Your task to perform on an android device: Search for sushi restaurants on Maps Image 0: 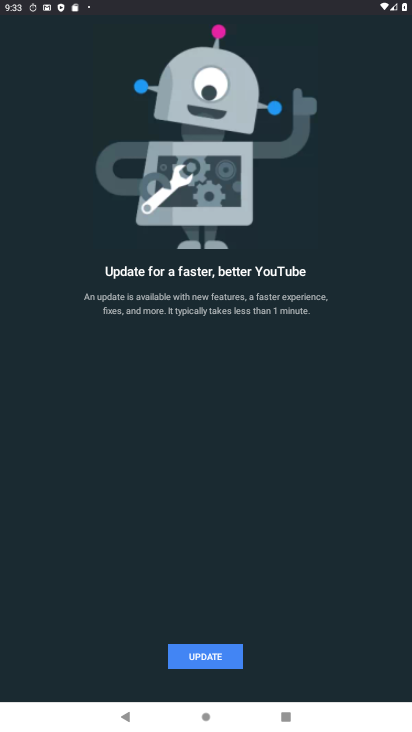
Step 0: press back button
Your task to perform on an android device: Search for sushi restaurants on Maps Image 1: 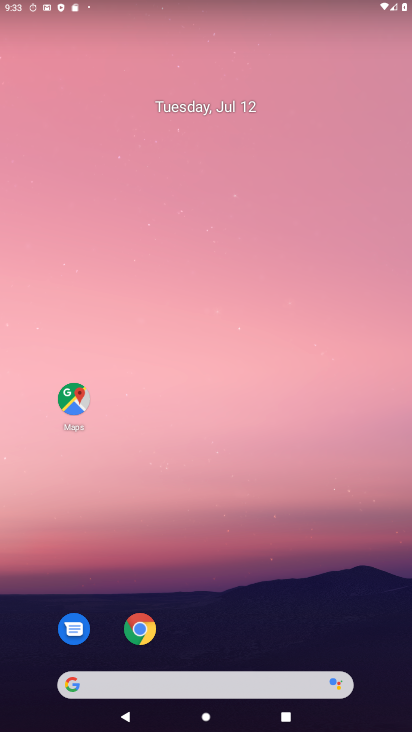
Step 1: drag from (335, 585) to (260, 12)
Your task to perform on an android device: Search for sushi restaurants on Maps Image 2: 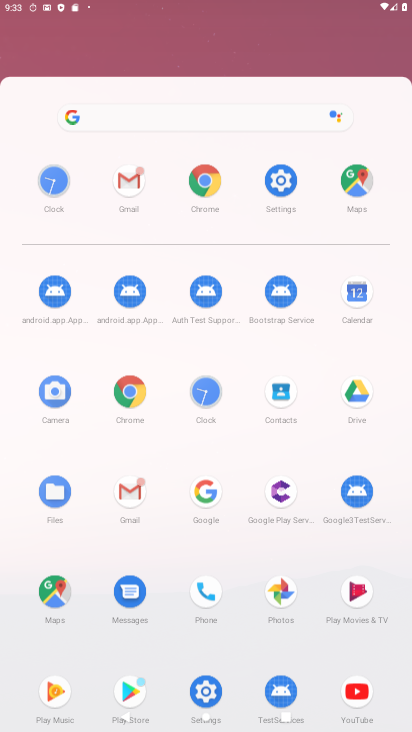
Step 2: drag from (231, 432) to (175, 28)
Your task to perform on an android device: Search for sushi restaurants on Maps Image 3: 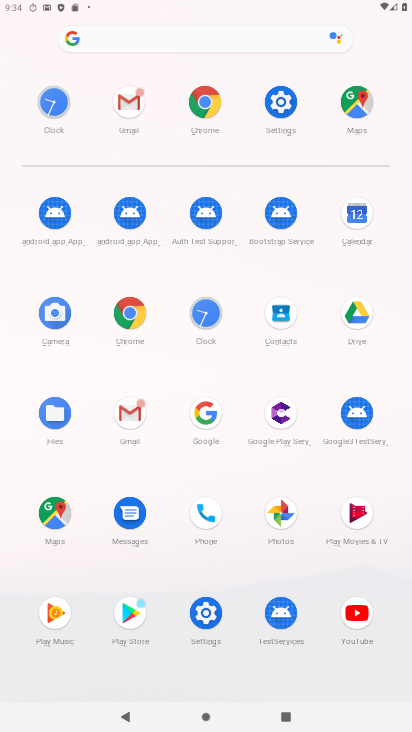
Step 3: click (52, 504)
Your task to perform on an android device: Search for sushi restaurants on Maps Image 4: 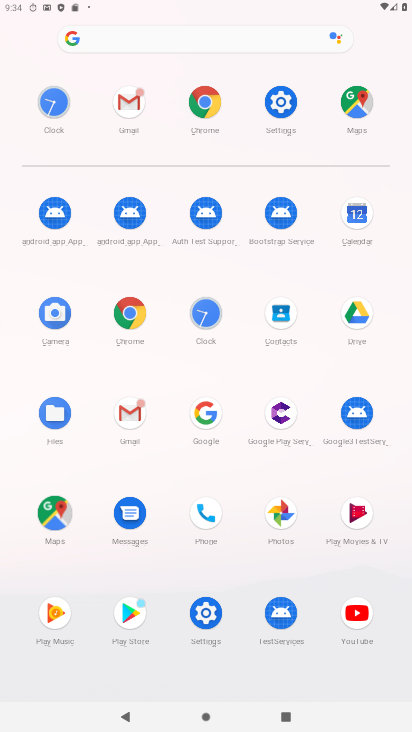
Step 4: click (52, 504)
Your task to perform on an android device: Search for sushi restaurants on Maps Image 5: 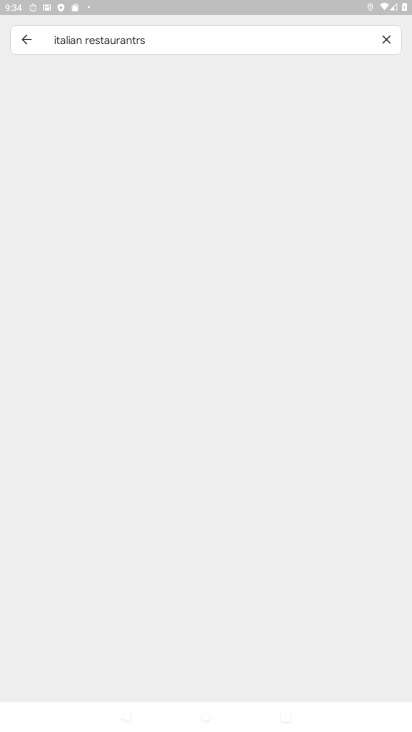
Step 5: press back button
Your task to perform on an android device: Search for sushi restaurants on Maps Image 6: 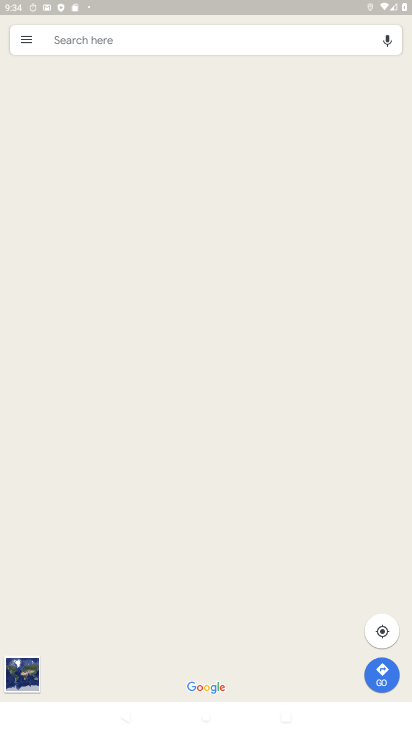
Step 6: click (82, 36)
Your task to perform on an android device: Search for sushi restaurants on Maps Image 7: 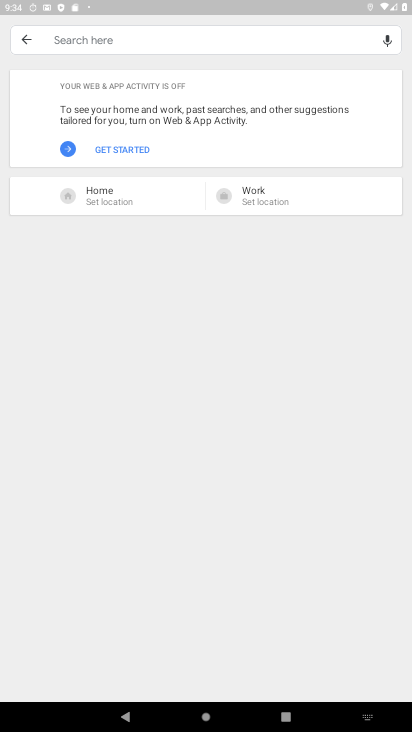
Step 7: type "sushi restaurants"
Your task to perform on an android device: Search for sushi restaurants on Maps Image 8: 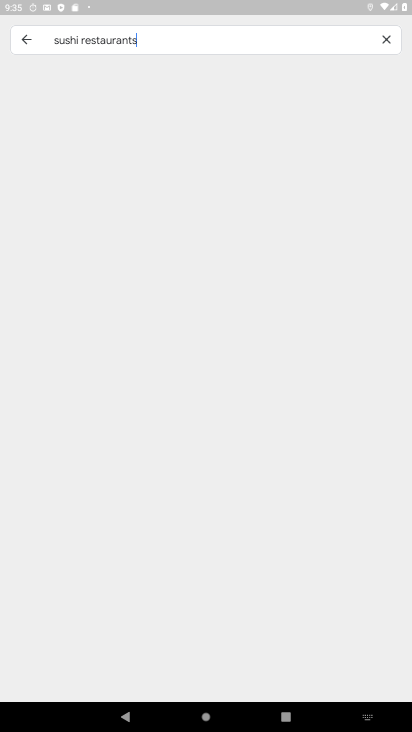
Step 8: click (200, 43)
Your task to perform on an android device: Search for sushi restaurants on Maps Image 9: 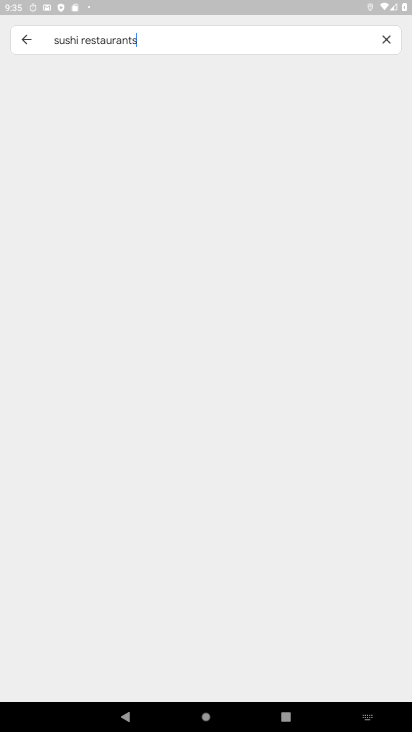
Step 9: task complete